Your task to perform on an android device: Open Google Maps and go to "Timeline" Image 0: 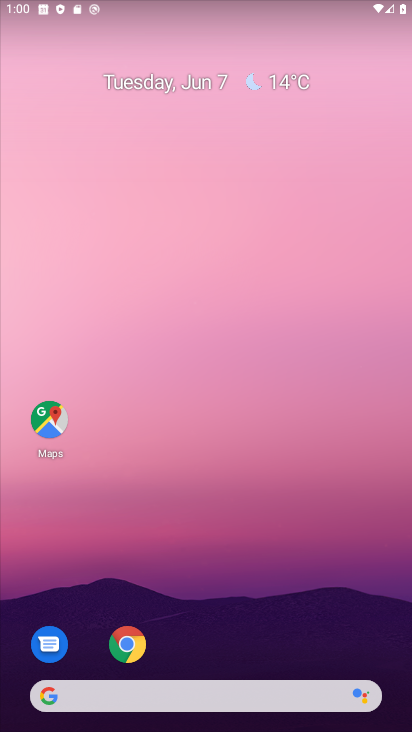
Step 0: click (41, 425)
Your task to perform on an android device: Open Google Maps and go to "Timeline" Image 1: 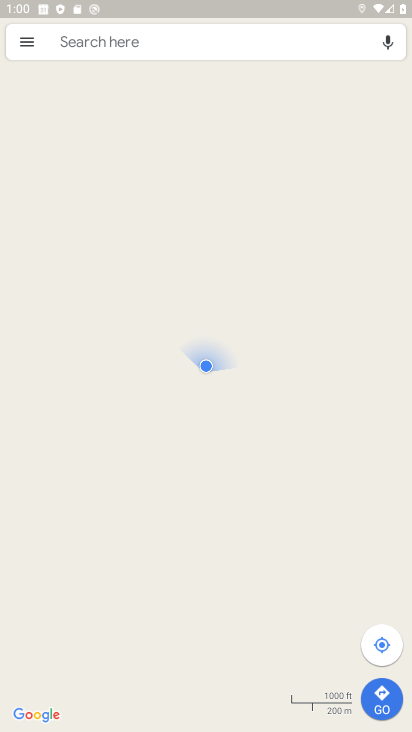
Step 1: click (23, 51)
Your task to perform on an android device: Open Google Maps and go to "Timeline" Image 2: 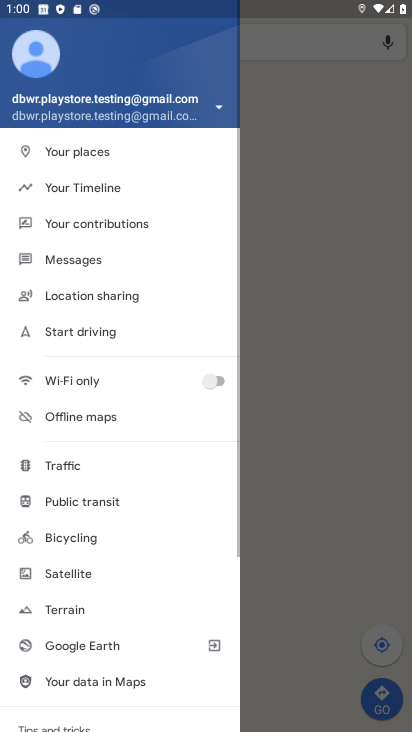
Step 2: click (60, 185)
Your task to perform on an android device: Open Google Maps and go to "Timeline" Image 3: 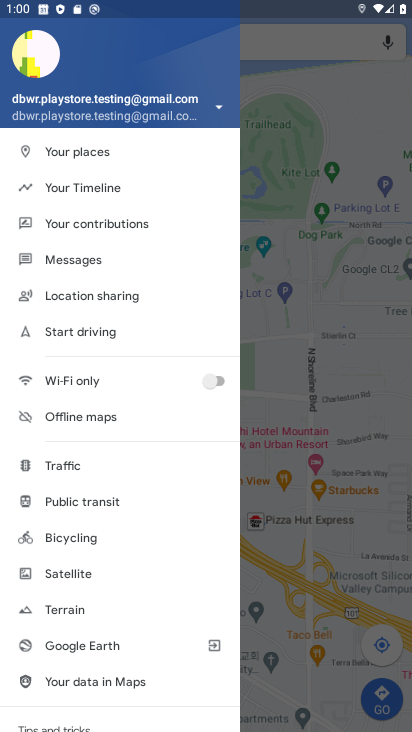
Step 3: click (60, 187)
Your task to perform on an android device: Open Google Maps and go to "Timeline" Image 4: 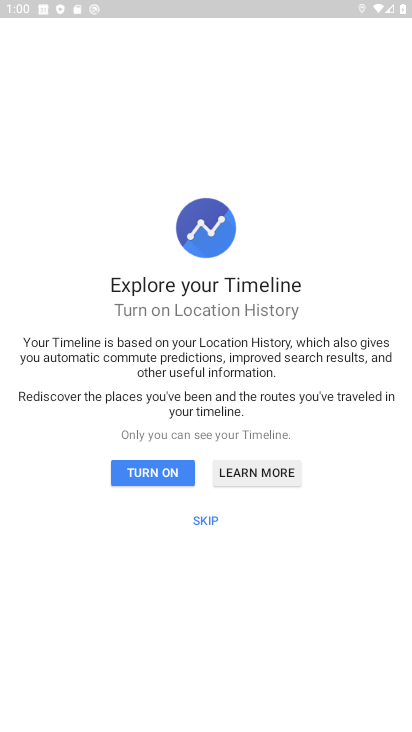
Step 4: click (218, 522)
Your task to perform on an android device: Open Google Maps and go to "Timeline" Image 5: 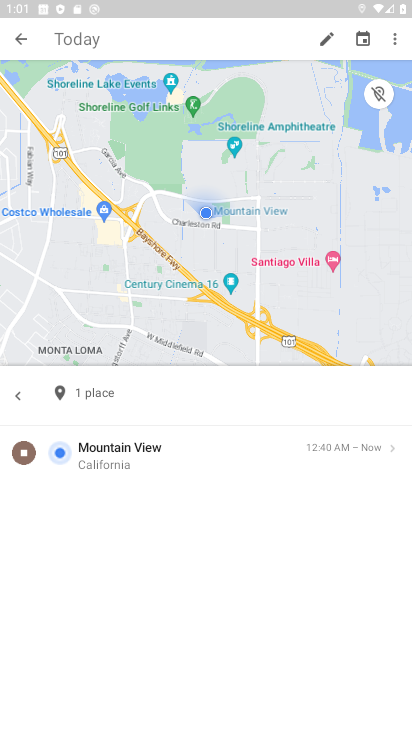
Step 5: task complete